Your task to perform on an android device: Play the last video I watched on Youtube Image 0: 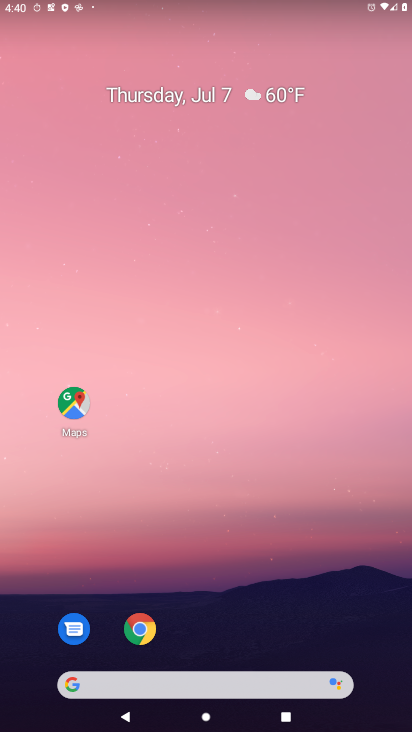
Step 0: drag from (193, 560) to (187, 98)
Your task to perform on an android device: Play the last video I watched on Youtube Image 1: 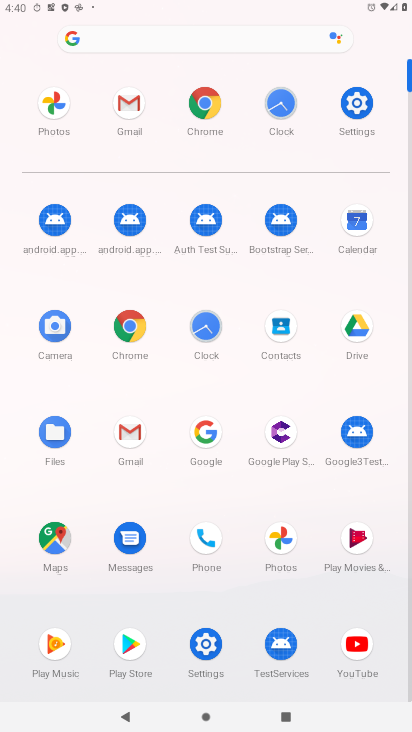
Step 1: click (357, 651)
Your task to perform on an android device: Play the last video I watched on Youtube Image 2: 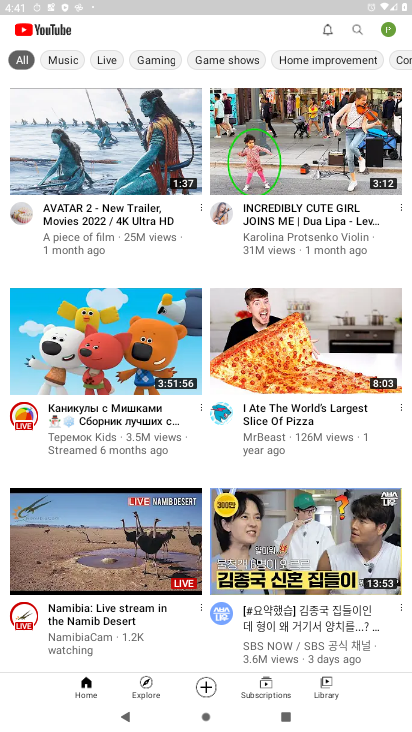
Step 2: click (319, 694)
Your task to perform on an android device: Play the last video I watched on Youtube Image 3: 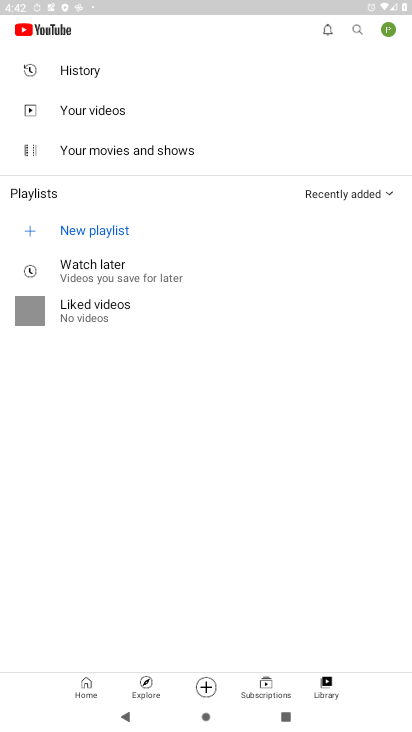
Step 3: click (84, 67)
Your task to perform on an android device: Play the last video I watched on Youtube Image 4: 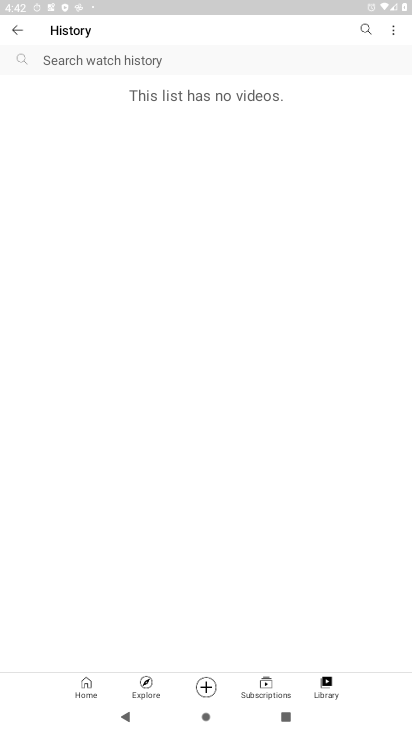
Step 4: task complete